Your task to perform on an android device: Go to location settings Image 0: 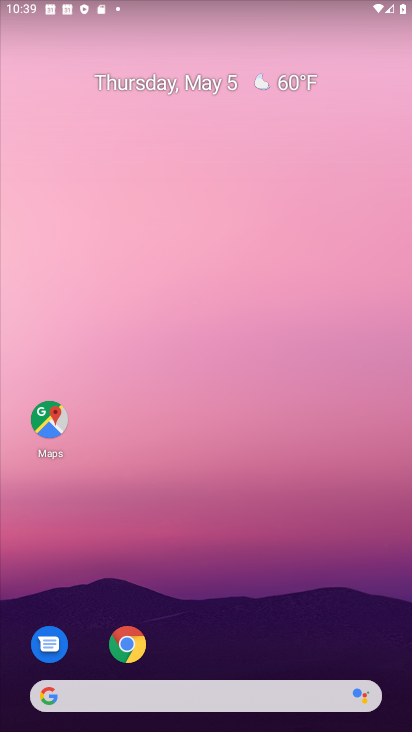
Step 0: drag from (209, 643) to (294, 233)
Your task to perform on an android device: Go to location settings Image 1: 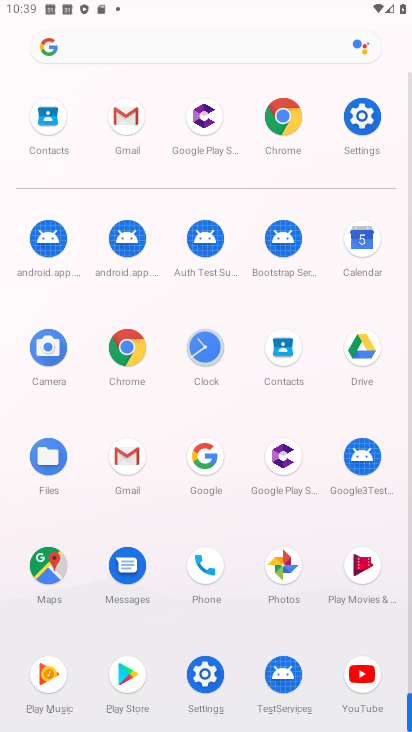
Step 1: drag from (143, 665) to (171, 130)
Your task to perform on an android device: Go to location settings Image 2: 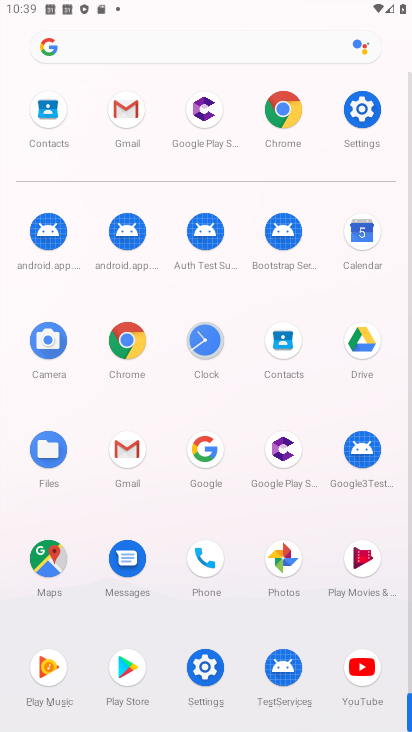
Step 2: drag from (176, 667) to (209, 79)
Your task to perform on an android device: Go to location settings Image 3: 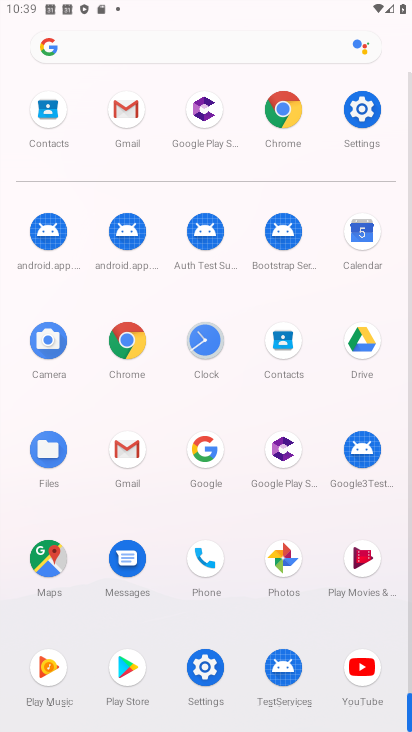
Step 3: drag from (87, 701) to (183, 82)
Your task to perform on an android device: Go to location settings Image 4: 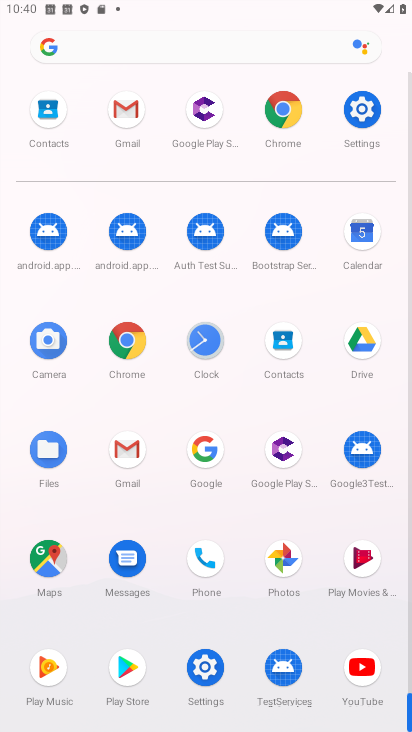
Step 4: click (360, 121)
Your task to perform on an android device: Go to location settings Image 5: 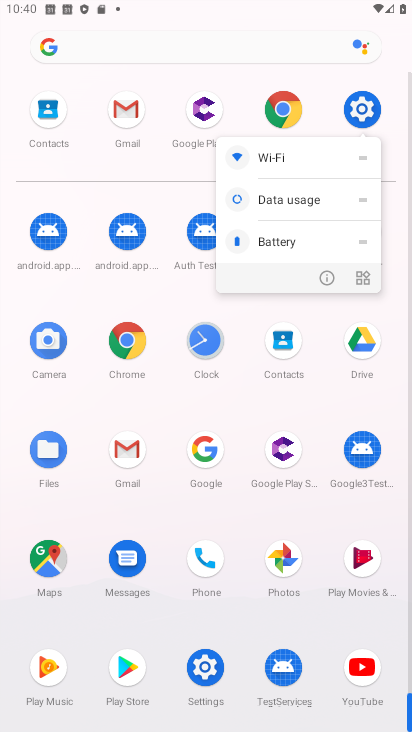
Step 5: click (332, 277)
Your task to perform on an android device: Go to location settings Image 6: 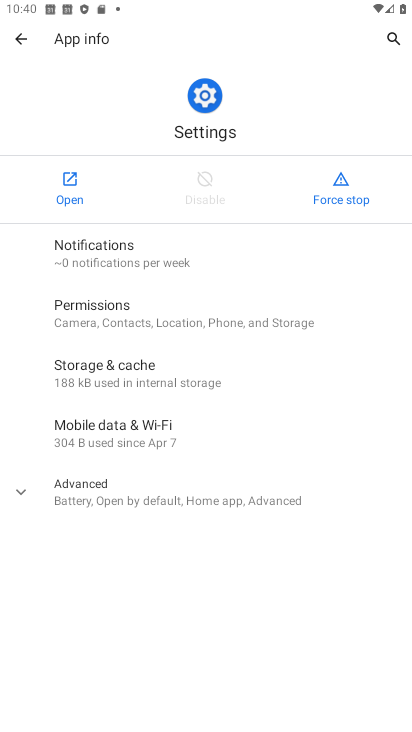
Step 6: click (74, 186)
Your task to perform on an android device: Go to location settings Image 7: 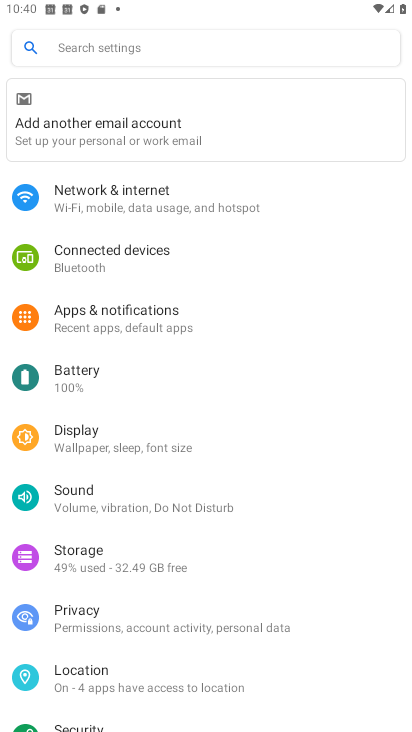
Step 7: click (124, 671)
Your task to perform on an android device: Go to location settings Image 8: 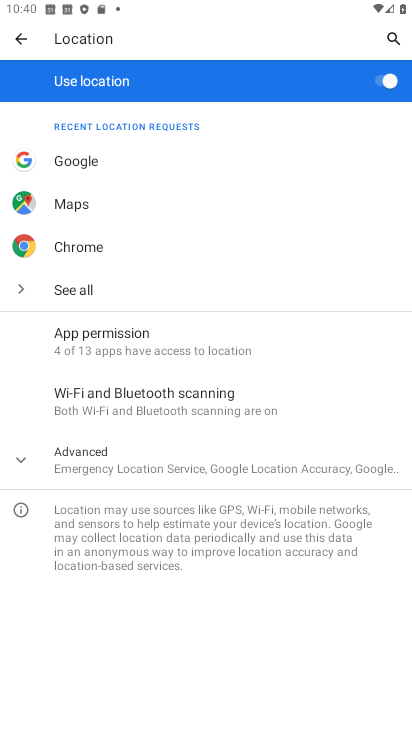
Step 8: click (185, 461)
Your task to perform on an android device: Go to location settings Image 9: 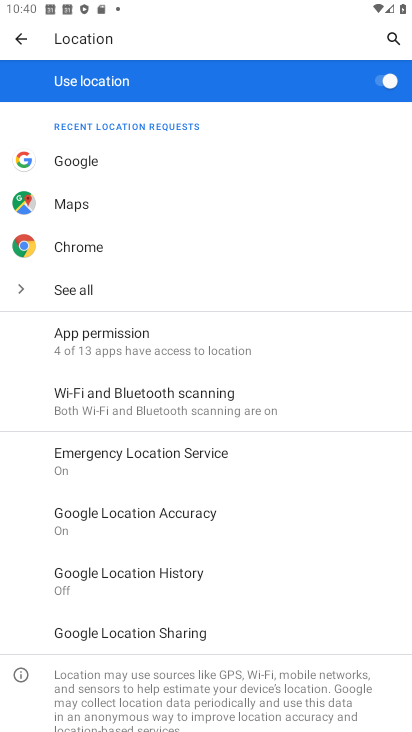
Step 9: task complete